Your task to perform on an android device: Open calendar and show me the second week of next month Image 0: 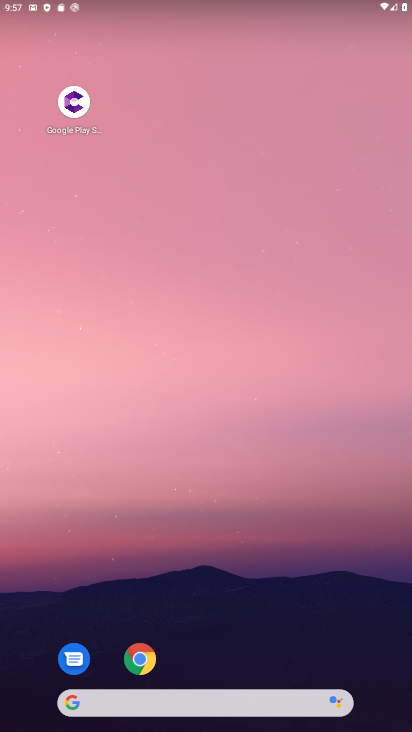
Step 0: drag from (256, 624) to (220, 198)
Your task to perform on an android device: Open calendar and show me the second week of next month Image 1: 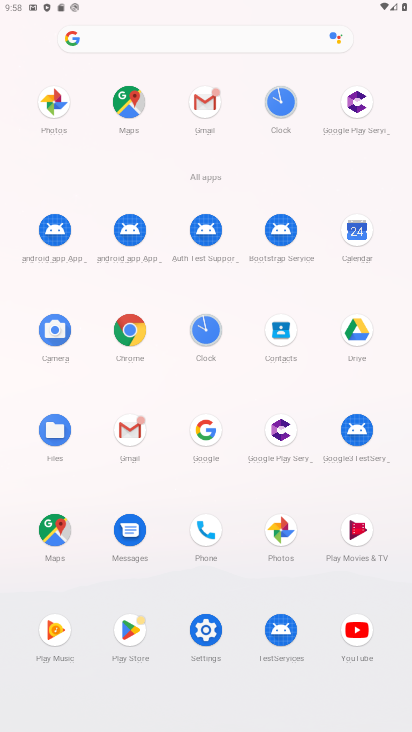
Step 1: click (362, 234)
Your task to perform on an android device: Open calendar and show me the second week of next month Image 2: 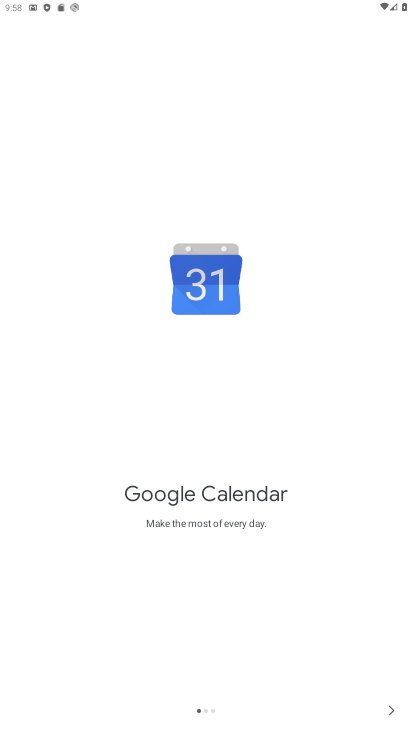
Step 2: click (397, 718)
Your task to perform on an android device: Open calendar and show me the second week of next month Image 3: 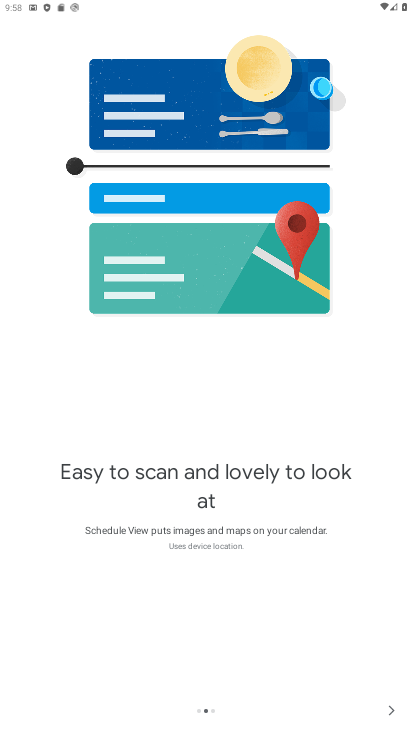
Step 3: click (395, 717)
Your task to perform on an android device: Open calendar and show me the second week of next month Image 4: 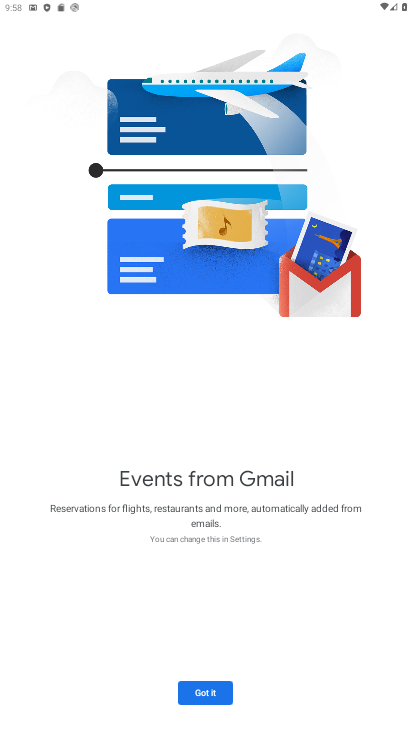
Step 4: click (210, 703)
Your task to perform on an android device: Open calendar and show me the second week of next month Image 5: 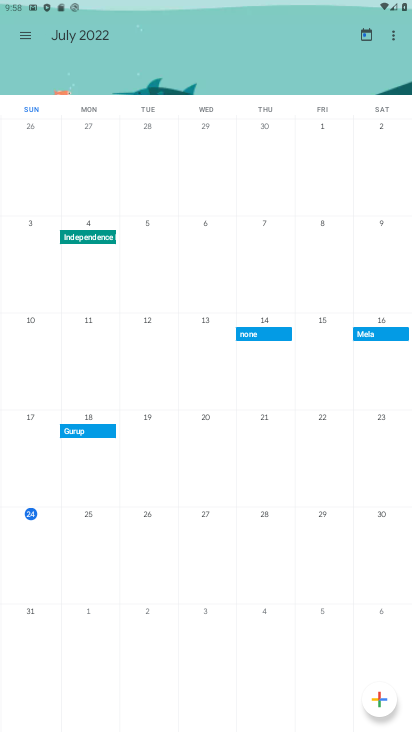
Step 5: click (21, 31)
Your task to perform on an android device: Open calendar and show me the second week of next month Image 6: 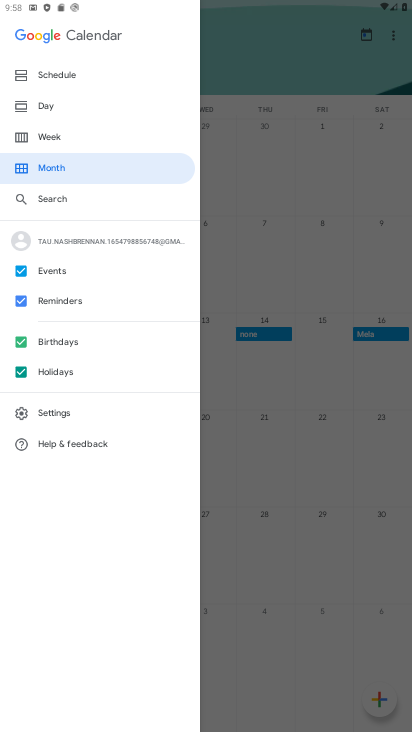
Step 6: click (59, 138)
Your task to perform on an android device: Open calendar and show me the second week of next month Image 7: 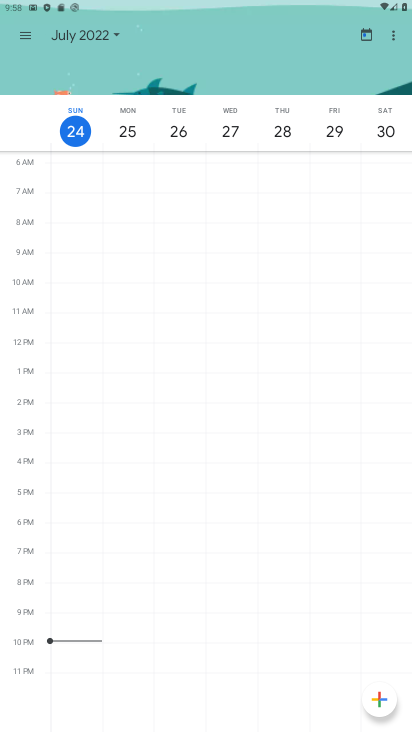
Step 7: click (107, 34)
Your task to perform on an android device: Open calendar and show me the second week of next month Image 8: 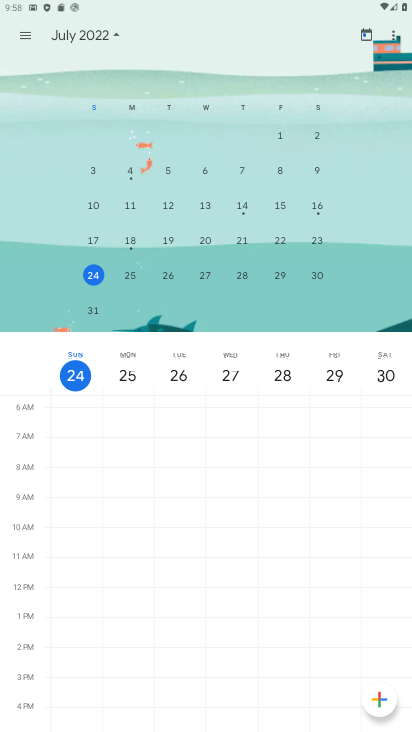
Step 8: drag from (298, 191) to (76, 201)
Your task to perform on an android device: Open calendar and show me the second week of next month Image 9: 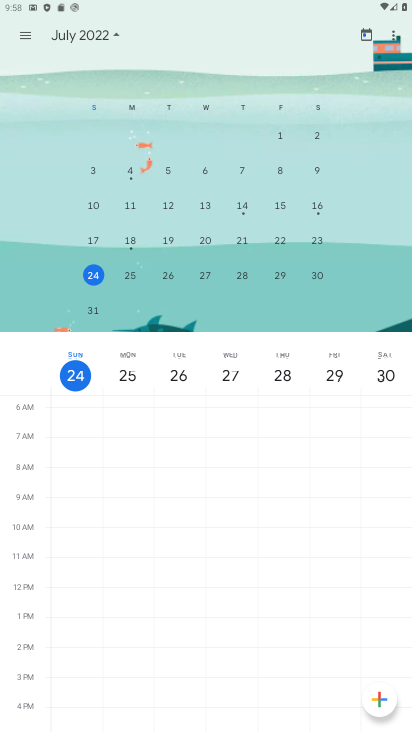
Step 9: drag from (391, 207) to (0, 240)
Your task to perform on an android device: Open calendar and show me the second week of next month Image 10: 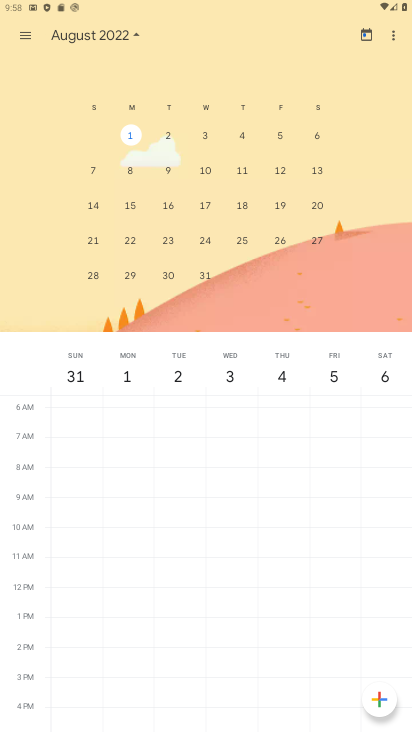
Step 10: click (203, 170)
Your task to perform on an android device: Open calendar and show me the second week of next month Image 11: 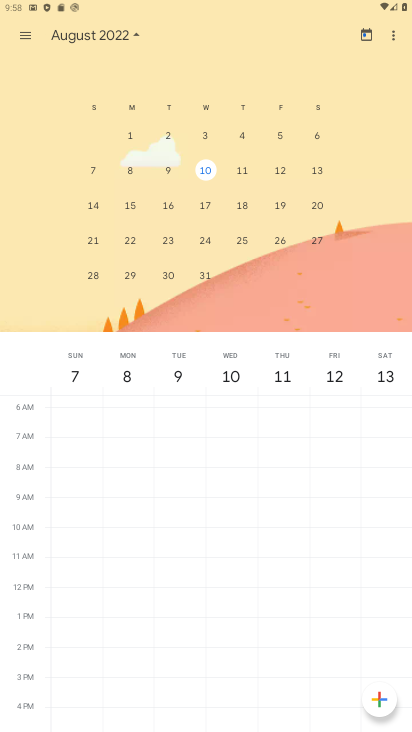
Step 11: task complete